Your task to perform on an android device: Show me popular videos on Youtube Image 0: 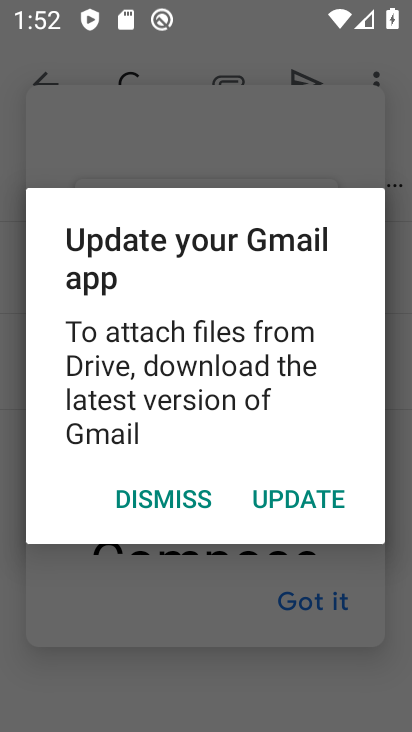
Step 0: press home button
Your task to perform on an android device: Show me popular videos on Youtube Image 1: 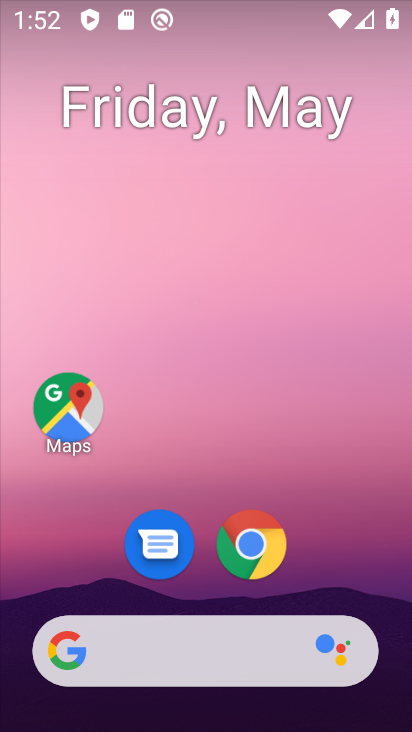
Step 1: drag from (195, 593) to (193, 162)
Your task to perform on an android device: Show me popular videos on Youtube Image 2: 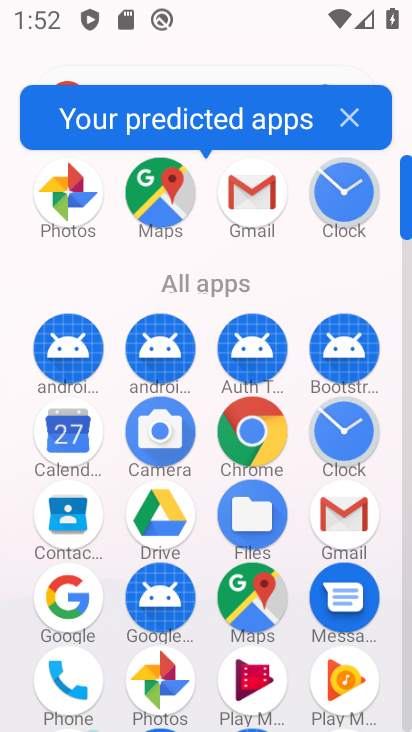
Step 2: drag from (200, 596) to (202, 244)
Your task to perform on an android device: Show me popular videos on Youtube Image 3: 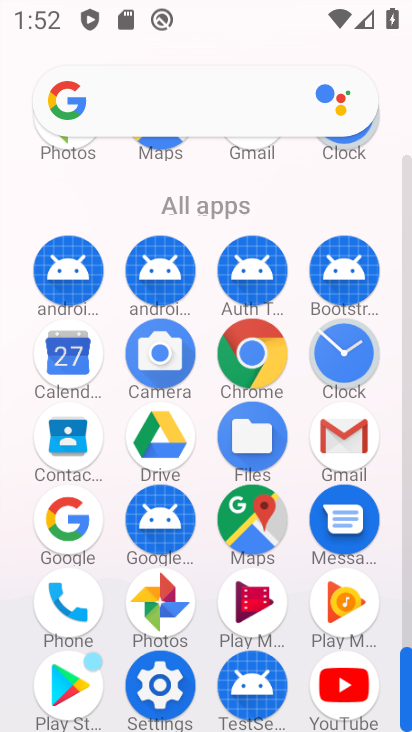
Step 3: click (331, 683)
Your task to perform on an android device: Show me popular videos on Youtube Image 4: 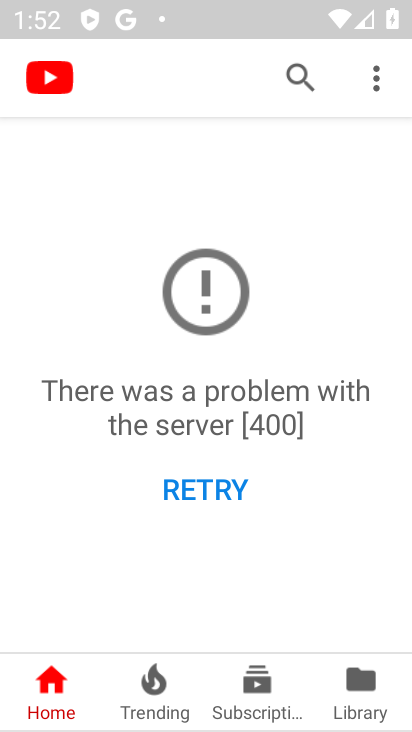
Step 4: click (285, 68)
Your task to perform on an android device: Show me popular videos on Youtube Image 5: 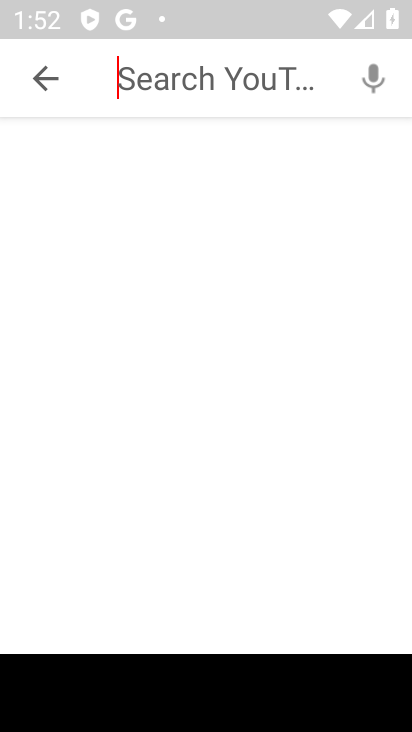
Step 5: type "popular videos"
Your task to perform on an android device: Show me popular videos on Youtube Image 6: 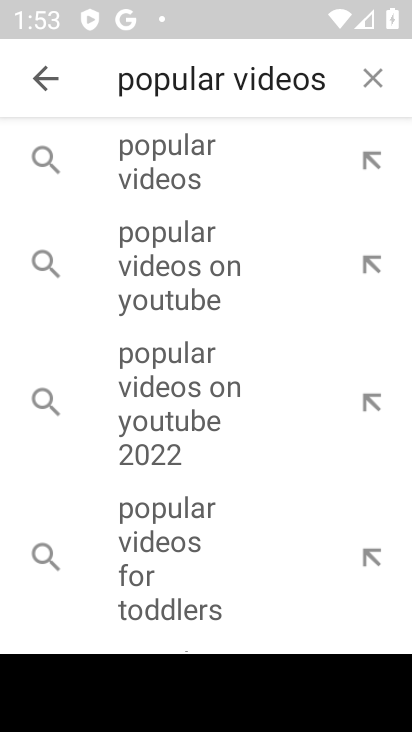
Step 6: click (216, 163)
Your task to perform on an android device: Show me popular videos on Youtube Image 7: 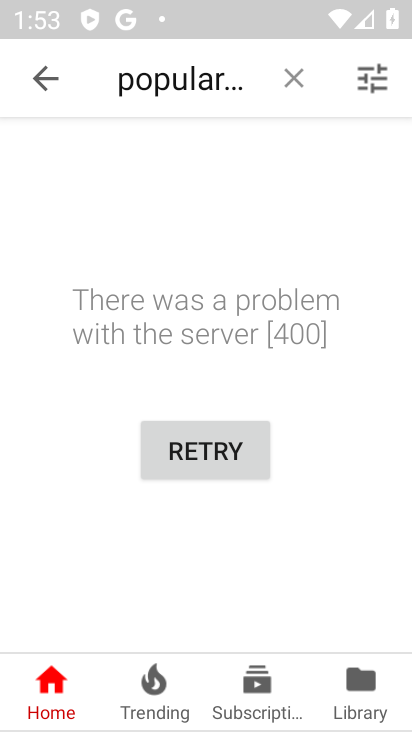
Step 7: task complete